Your task to perform on an android device: create a new album in the google photos Image 0: 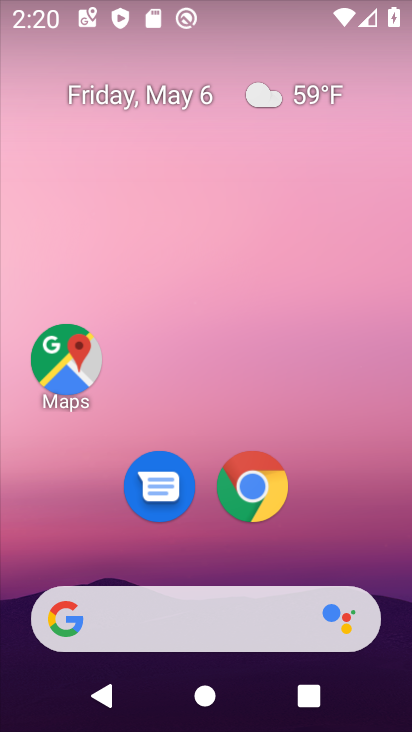
Step 0: drag from (331, 523) to (325, 11)
Your task to perform on an android device: create a new album in the google photos Image 1: 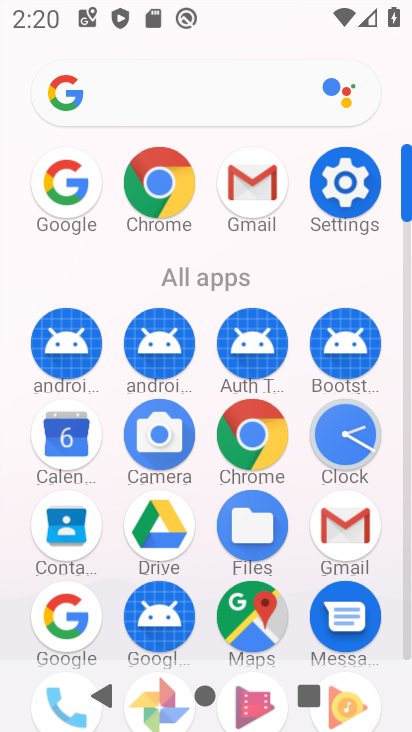
Step 1: drag from (186, 577) to (96, 148)
Your task to perform on an android device: create a new album in the google photos Image 2: 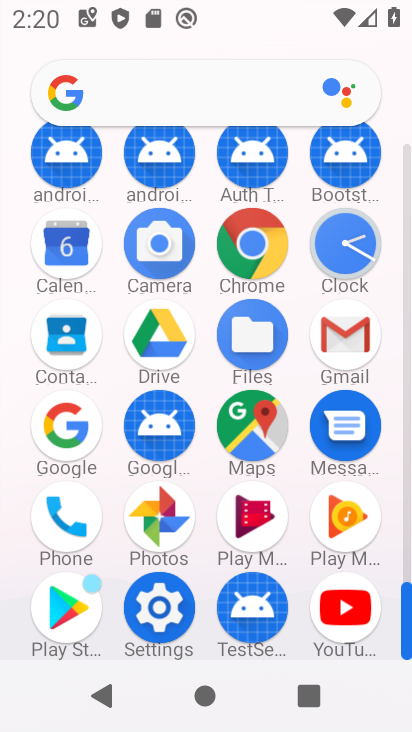
Step 2: click (163, 513)
Your task to perform on an android device: create a new album in the google photos Image 3: 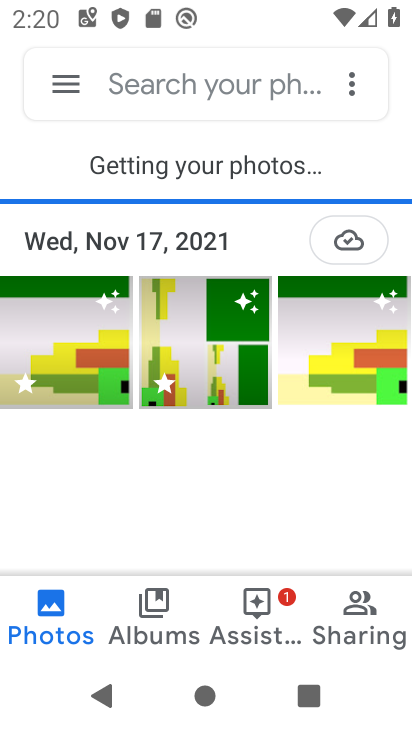
Step 3: click (150, 597)
Your task to perform on an android device: create a new album in the google photos Image 4: 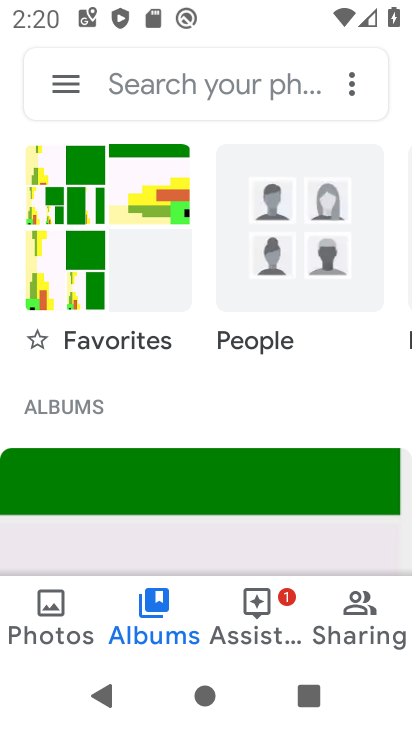
Step 4: click (351, 88)
Your task to perform on an android device: create a new album in the google photos Image 5: 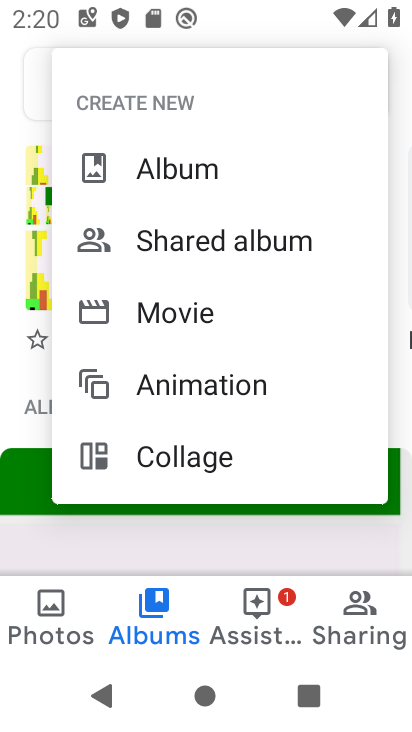
Step 5: click (163, 159)
Your task to perform on an android device: create a new album in the google photos Image 6: 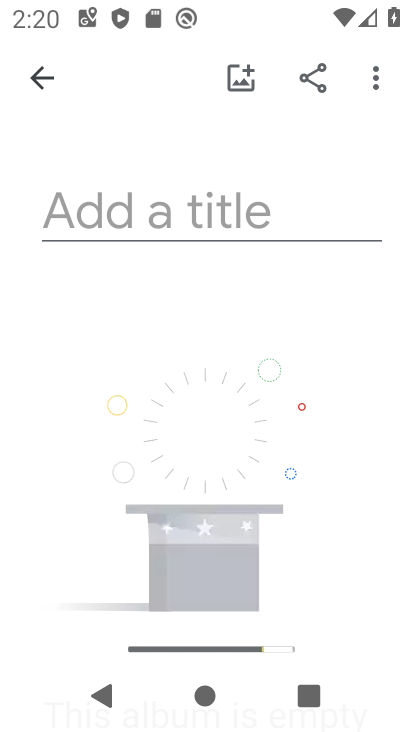
Step 6: click (100, 167)
Your task to perform on an android device: create a new album in the google photos Image 7: 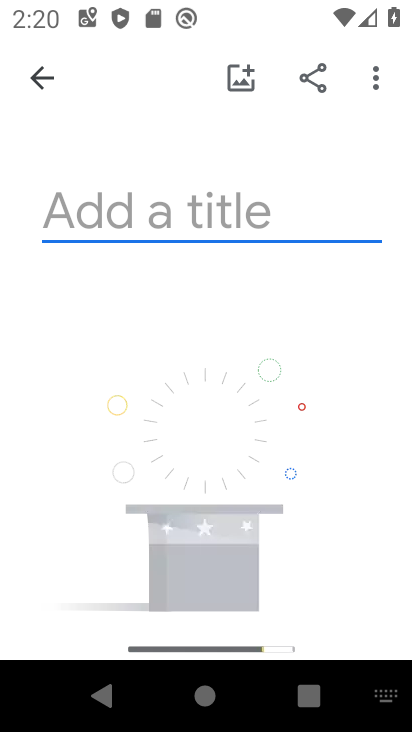
Step 7: click (116, 196)
Your task to perform on an android device: create a new album in the google photos Image 8: 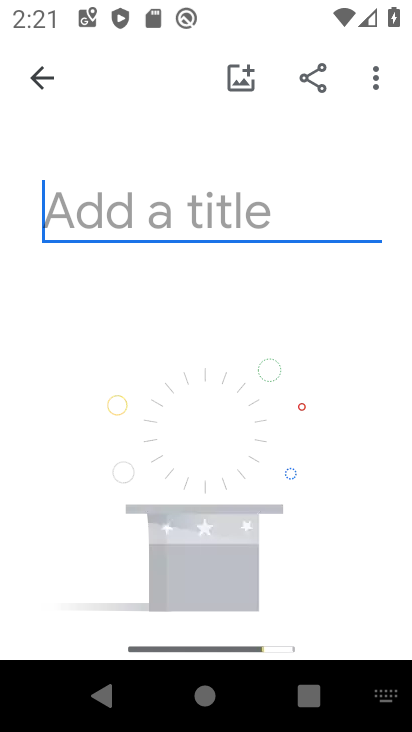
Step 8: type "nbydh"
Your task to perform on an android device: create a new album in the google photos Image 9: 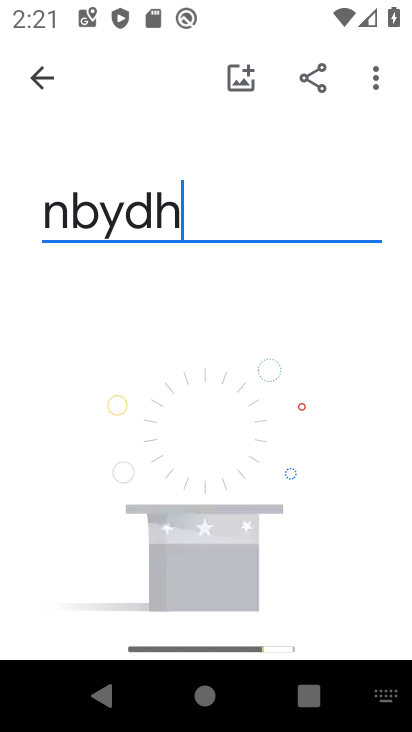
Step 9: click (177, 329)
Your task to perform on an android device: create a new album in the google photos Image 10: 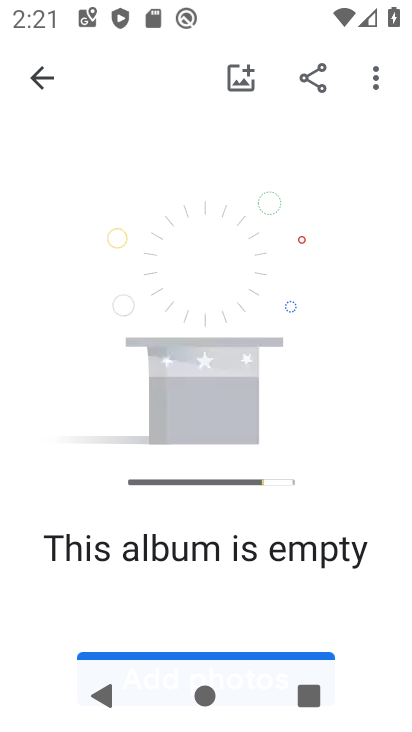
Step 10: click (177, 329)
Your task to perform on an android device: create a new album in the google photos Image 11: 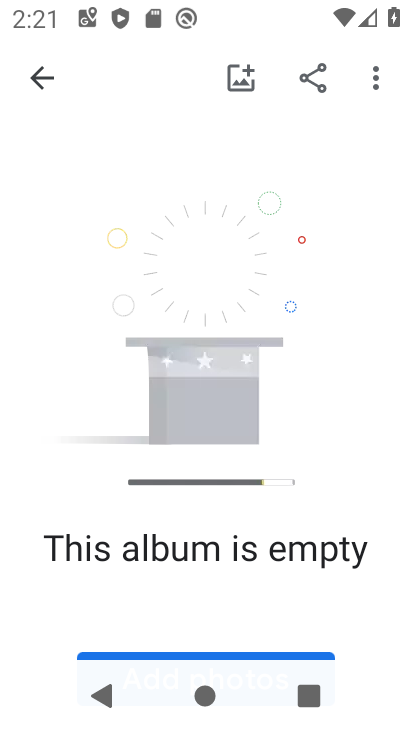
Step 11: drag from (222, 565) to (186, 224)
Your task to perform on an android device: create a new album in the google photos Image 12: 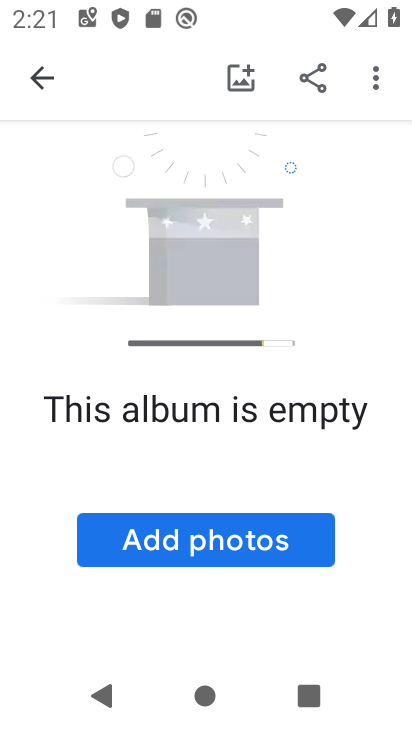
Step 12: click (202, 535)
Your task to perform on an android device: create a new album in the google photos Image 13: 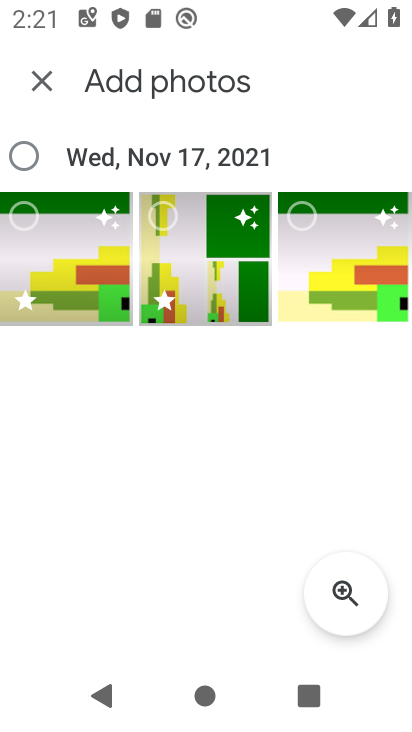
Step 13: click (80, 259)
Your task to perform on an android device: create a new album in the google photos Image 14: 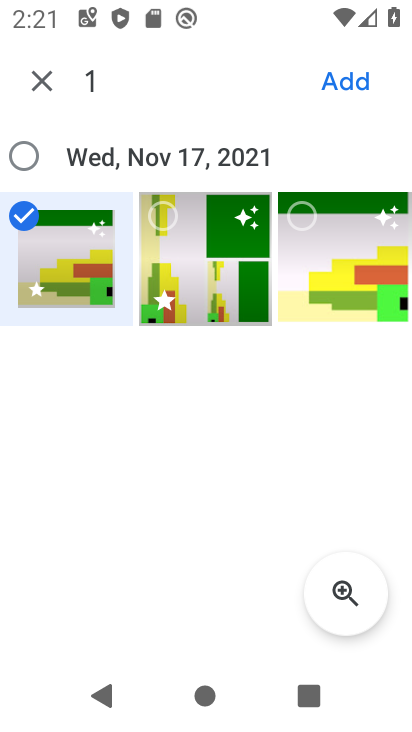
Step 14: click (339, 85)
Your task to perform on an android device: create a new album in the google photos Image 15: 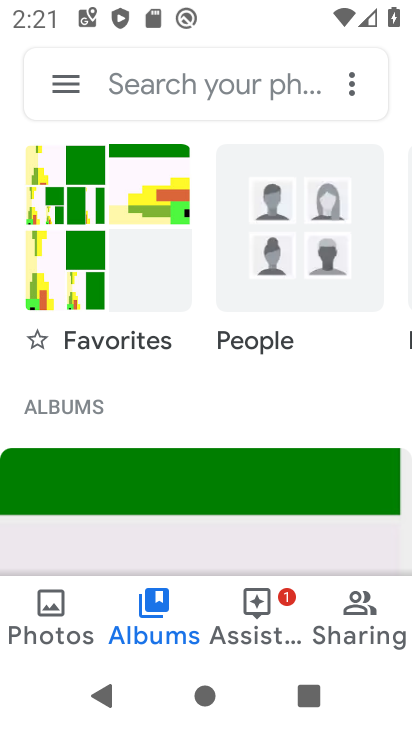
Step 15: task complete